Your task to perform on an android device: all mails in gmail Image 0: 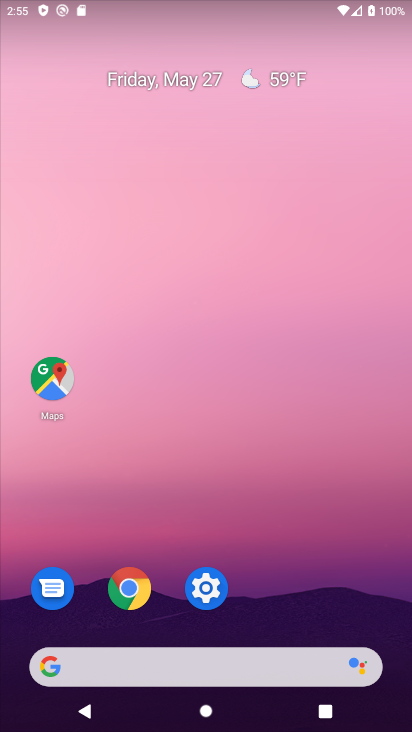
Step 0: drag from (269, 653) to (121, 76)
Your task to perform on an android device: all mails in gmail Image 1: 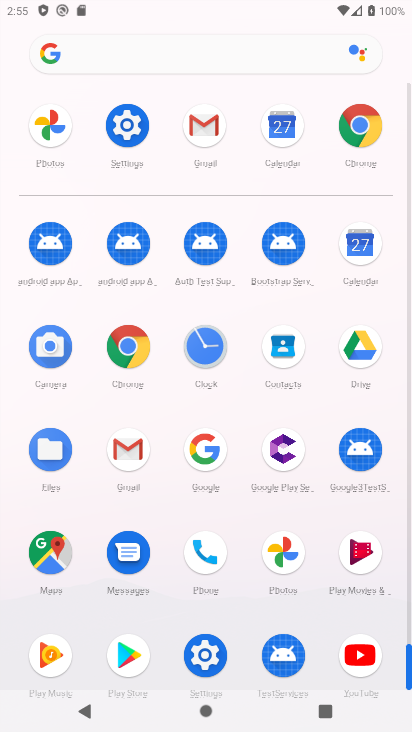
Step 1: click (194, 131)
Your task to perform on an android device: all mails in gmail Image 2: 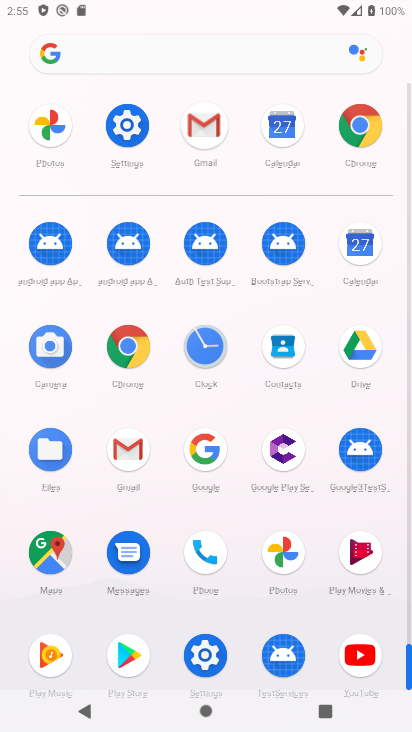
Step 2: click (194, 131)
Your task to perform on an android device: all mails in gmail Image 3: 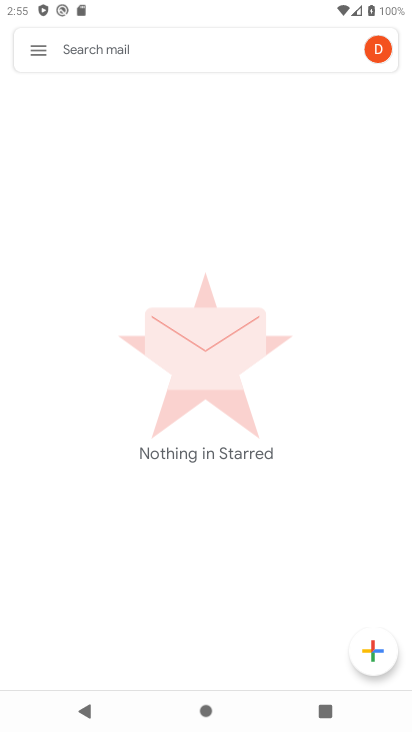
Step 3: click (196, 125)
Your task to perform on an android device: all mails in gmail Image 4: 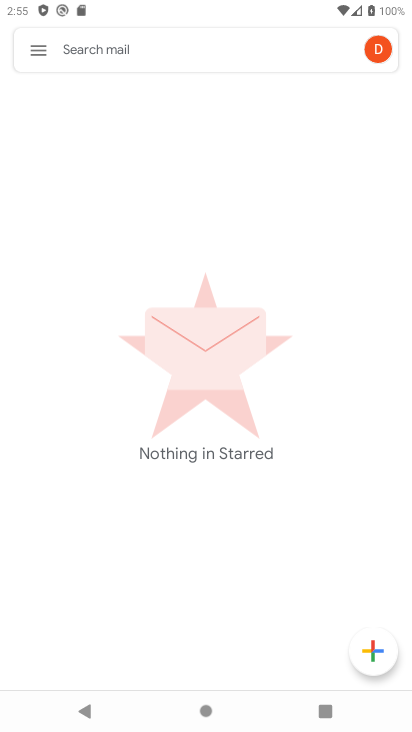
Step 4: click (40, 51)
Your task to perform on an android device: all mails in gmail Image 5: 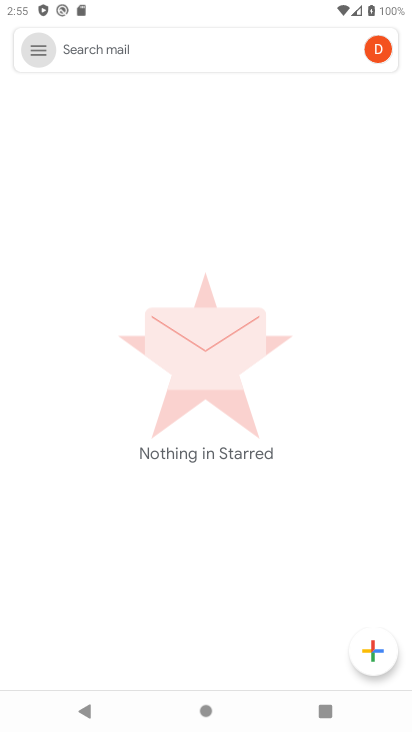
Step 5: click (40, 51)
Your task to perform on an android device: all mails in gmail Image 6: 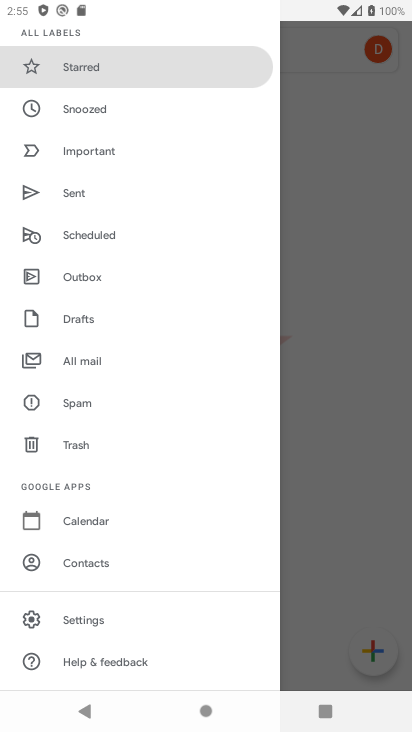
Step 6: click (75, 362)
Your task to perform on an android device: all mails in gmail Image 7: 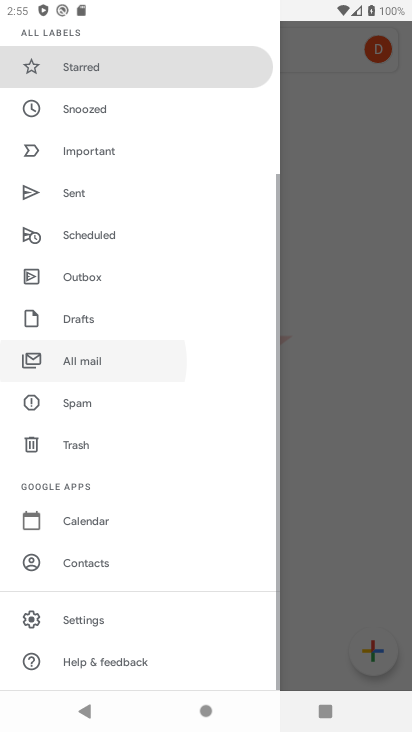
Step 7: click (75, 362)
Your task to perform on an android device: all mails in gmail Image 8: 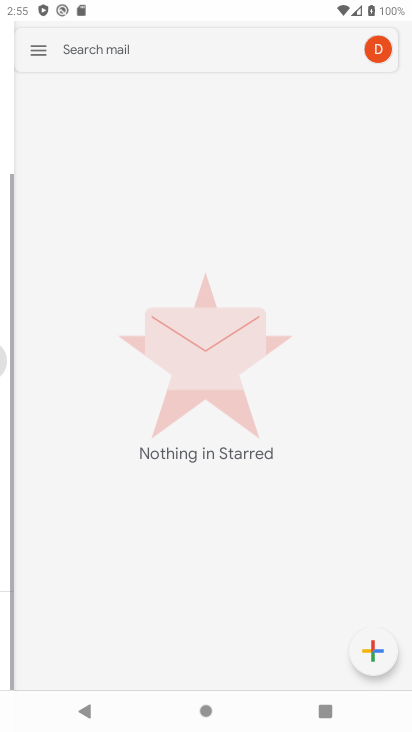
Step 8: click (75, 362)
Your task to perform on an android device: all mails in gmail Image 9: 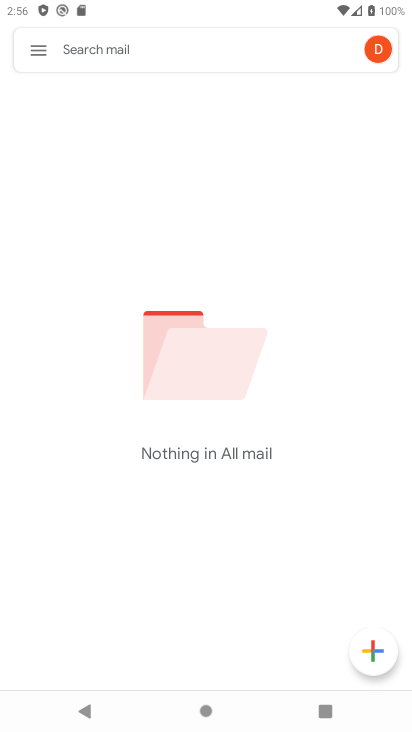
Step 9: task complete